Your task to perform on an android device: check the backup settings in the google photos Image 0: 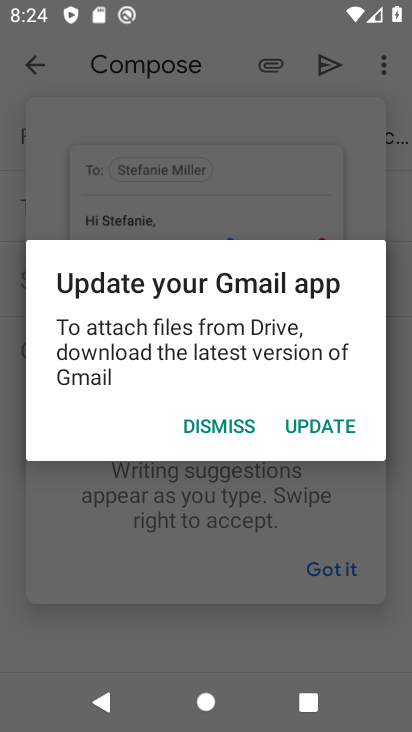
Step 0: press home button
Your task to perform on an android device: check the backup settings in the google photos Image 1: 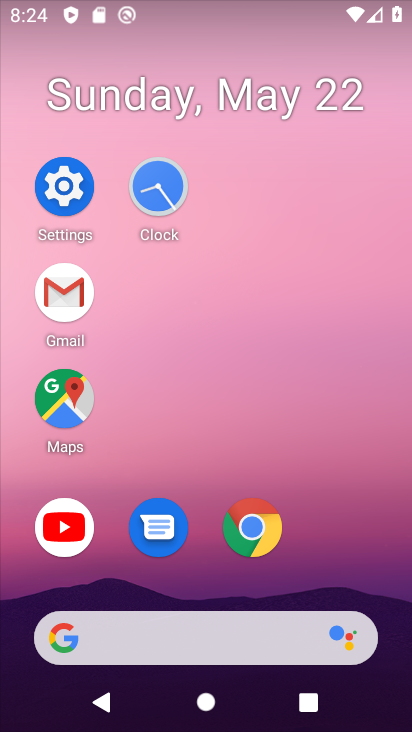
Step 1: drag from (315, 543) to (295, 35)
Your task to perform on an android device: check the backup settings in the google photos Image 2: 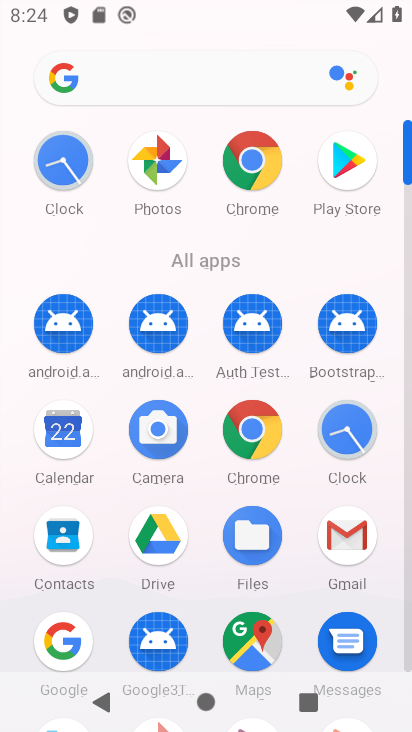
Step 2: drag from (280, 596) to (292, 185)
Your task to perform on an android device: check the backup settings in the google photos Image 3: 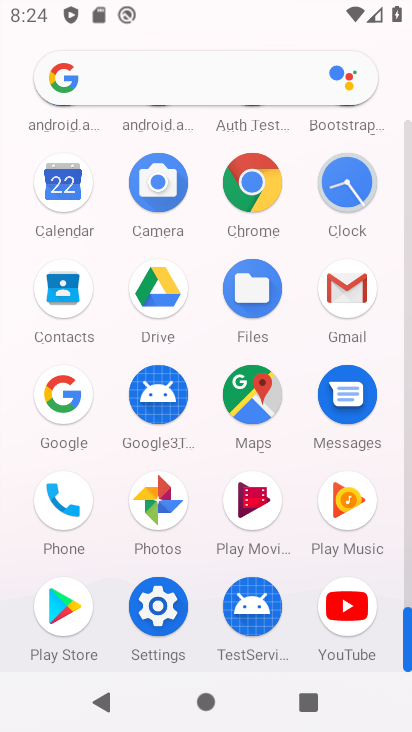
Step 3: drag from (157, 498) to (147, 303)
Your task to perform on an android device: check the backup settings in the google photos Image 4: 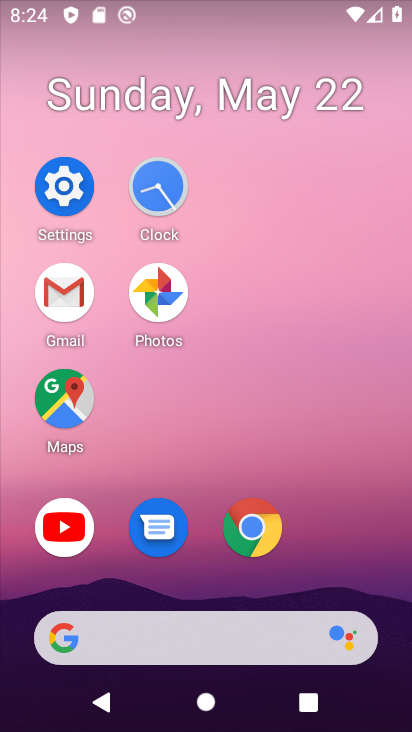
Step 4: click (165, 293)
Your task to perform on an android device: check the backup settings in the google photos Image 5: 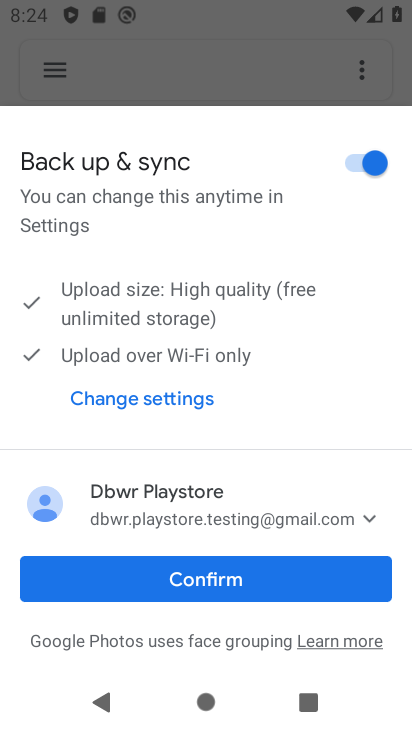
Step 5: click (323, 567)
Your task to perform on an android device: check the backup settings in the google photos Image 6: 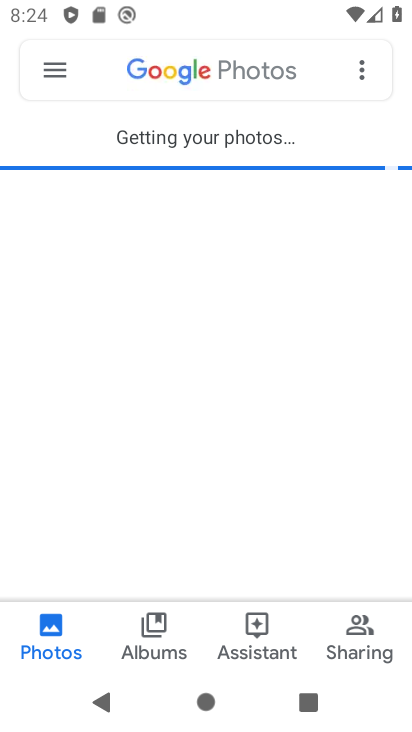
Step 6: click (76, 88)
Your task to perform on an android device: check the backup settings in the google photos Image 7: 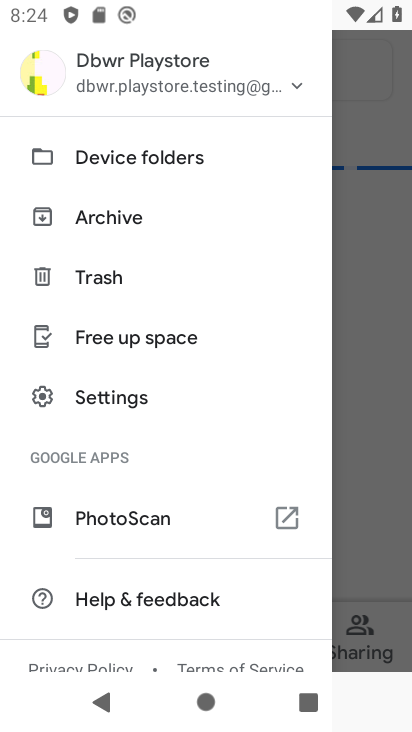
Step 7: drag from (149, 601) to (153, 121)
Your task to perform on an android device: check the backup settings in the google photos Image 8: 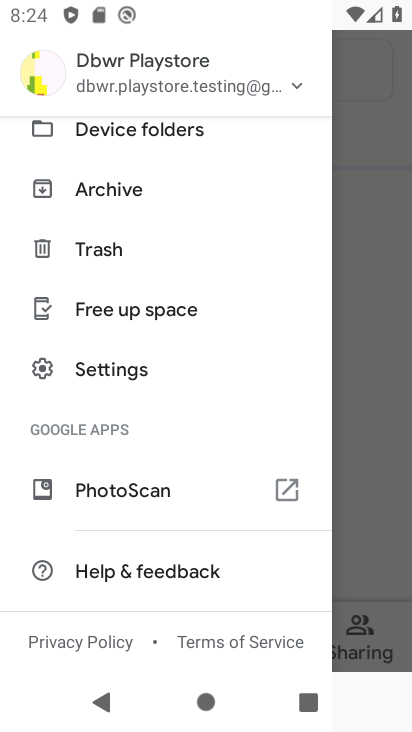
Step 8: click (158, 383)
Your task to perform on an android device: check the backup settings in the google photos Image 9: 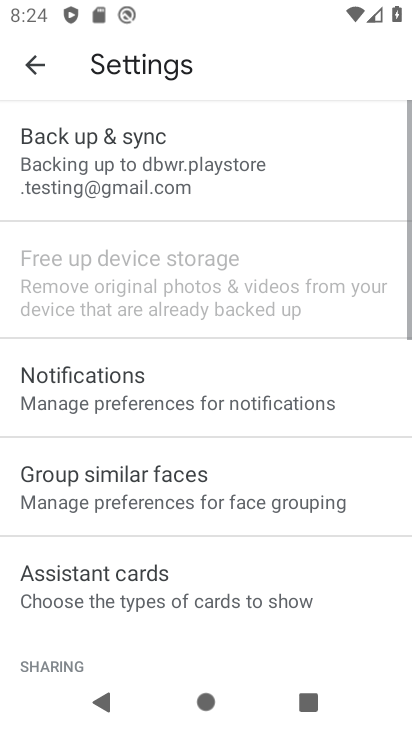
Step 9: click (159, 143)
Your task to perform on an android device: check the backup settings in the google photos Image 10: 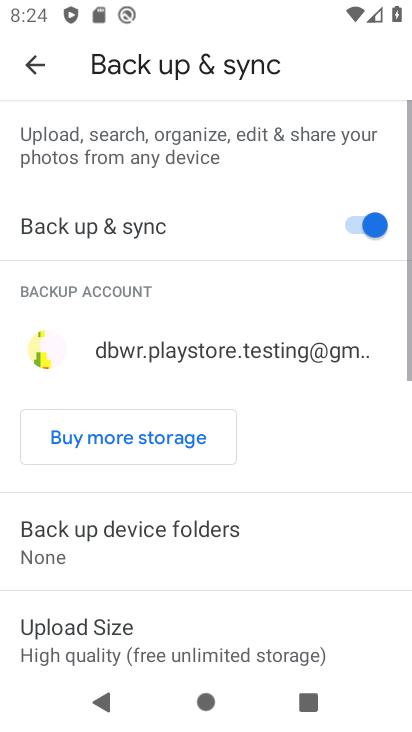
Step 10: task complete